Your task to perform on an android device: check out phone information Image 0: 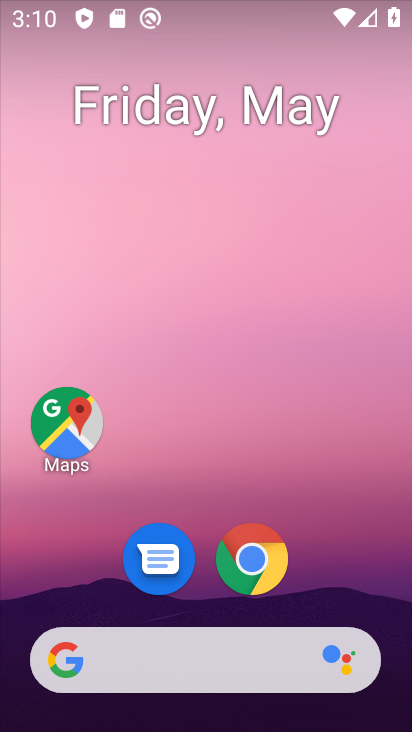
Step 0: drag from (336, 556) to (295, 155)
Your task to perform on an android device: check out phone information Image 1: 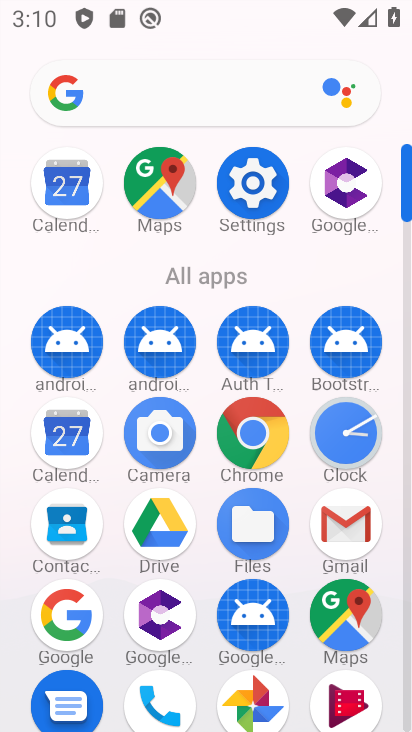
Step 1: click (263, 168)
Your task to perform on an android device: check out phone information Image 2: 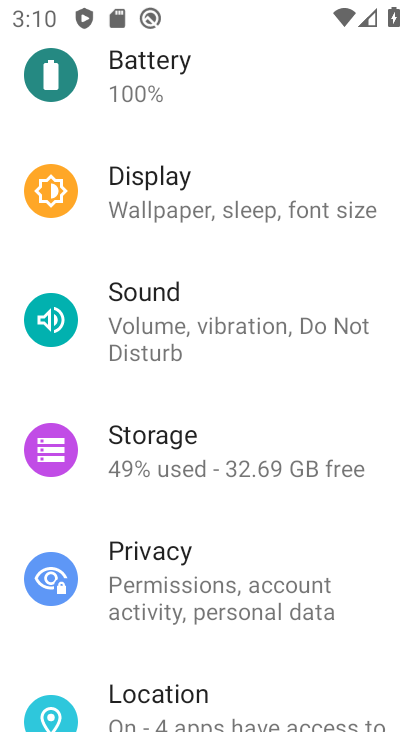
Step 2: drag from (186, 662) to (114, 14)
Your task to perform on an android device: check out phone information Image 3: 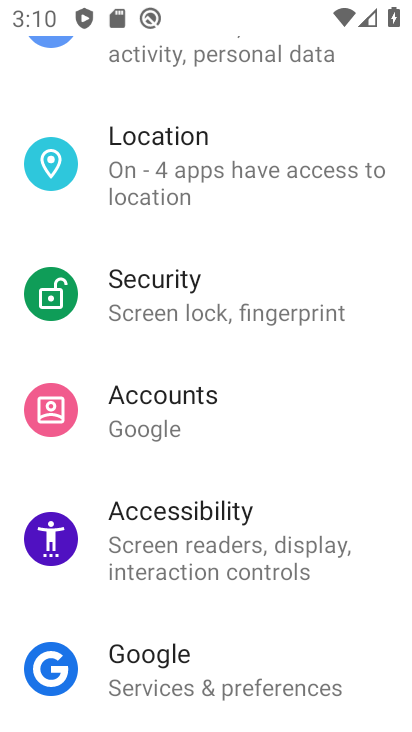
Step 3: drag from (178, 680) to (145, 37)
Your task to perform on an android device: check out phone information Image 4: 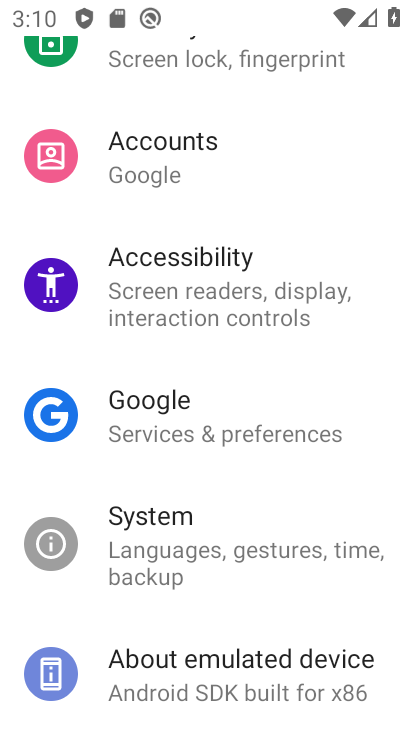
Step 4: click (181, 670)
Your task to perform on an android device: check out phone information Image 5: 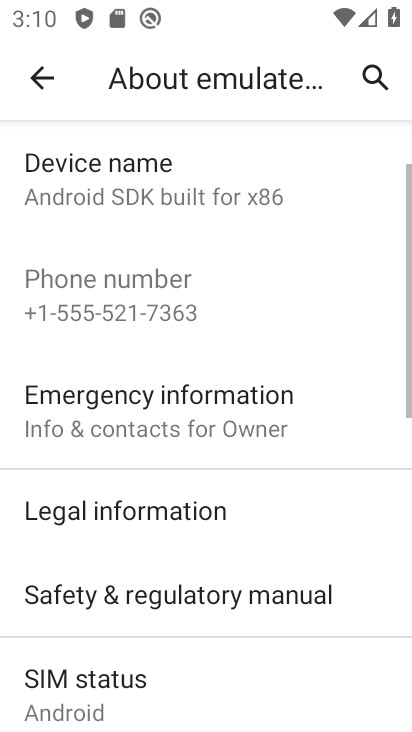
Step 5: task complete